Your task to perform on an android device: Open calendar and show me the second week of next month Image 0: 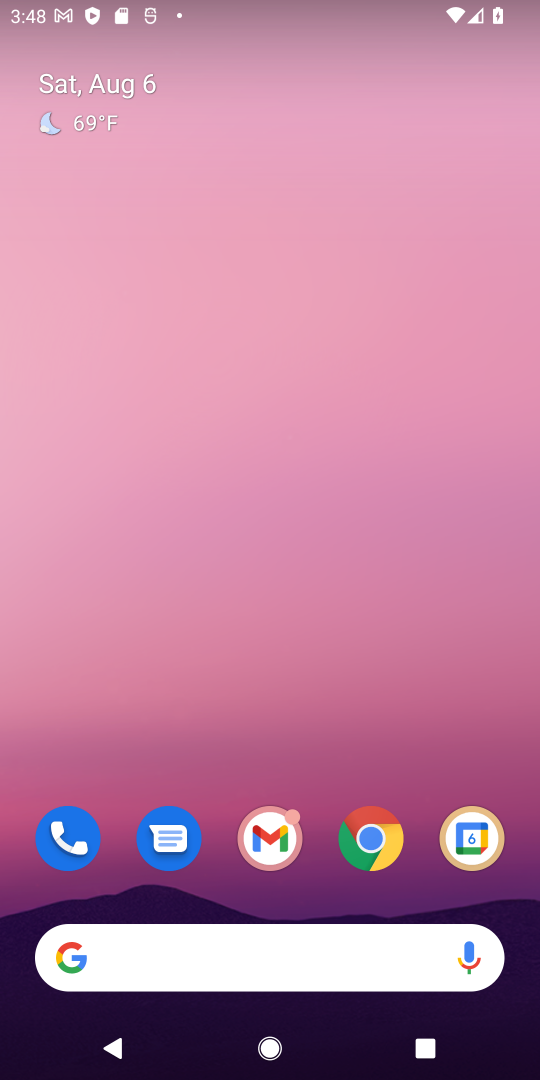
Step 0: drag from (76, 770) to (331, 215)
Your task to perform on an android device: Open calendar and show me the second week of next month Image 1: 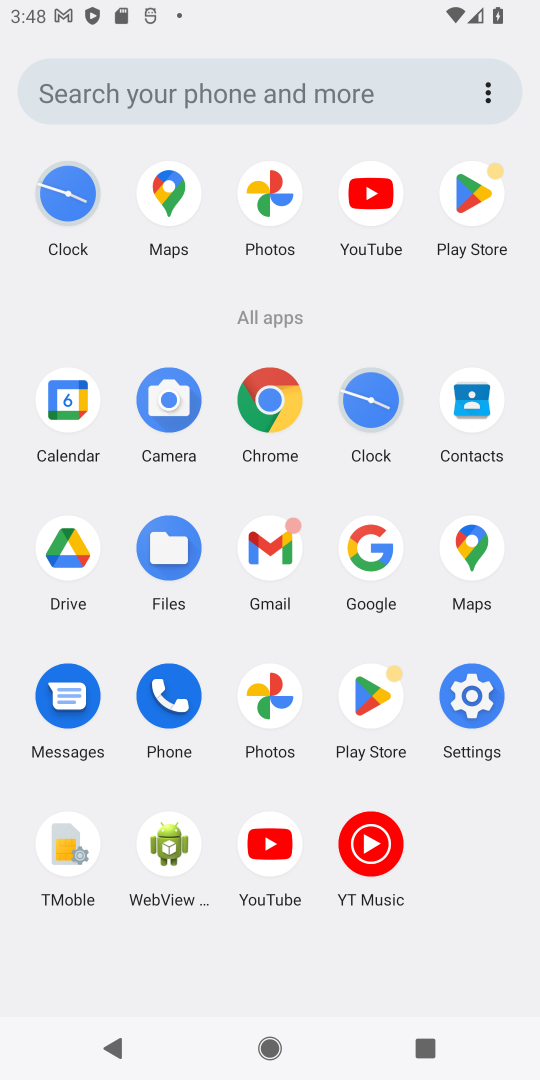
Step 1: click (30, 405)
Your task to perform on an android device: Open calendar and show me the second week of next month Image 2: 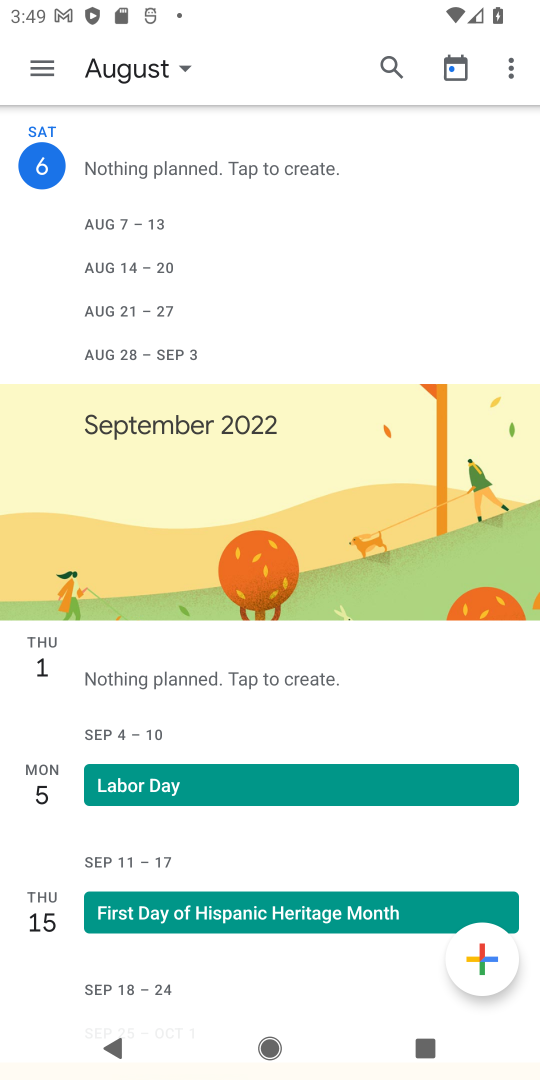
Step 2: click (153, 57)
Your task to perform on an android device: Open calendar and show me the second week of next month Image 3: 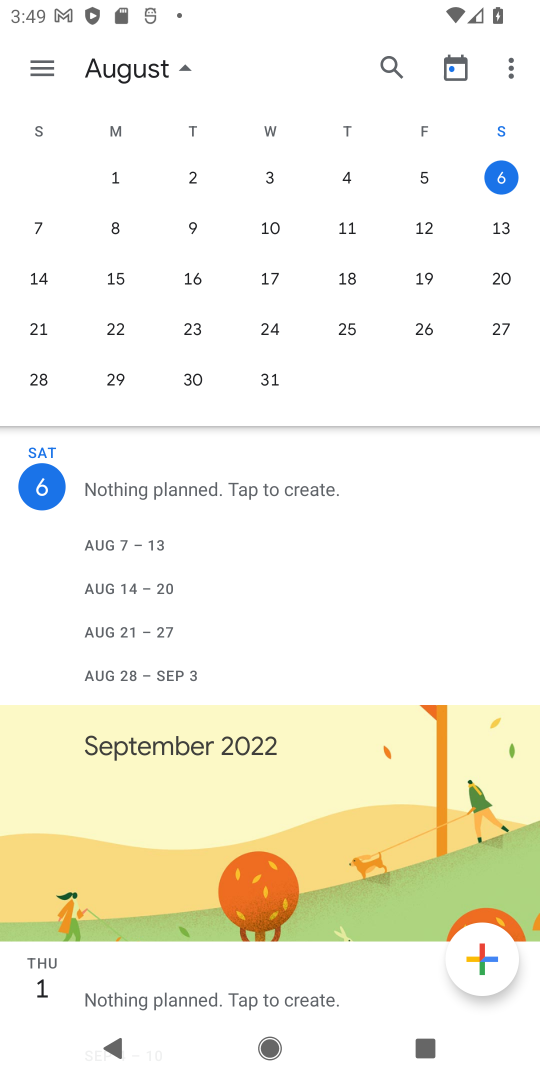
Step 3: task complete